Your task to perform on an android device: Open settings Image 0: 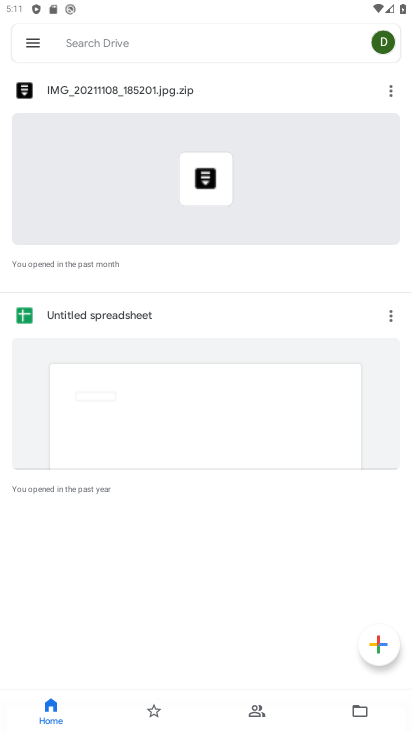
Step 0: press home button
Your task to perform on an android device: Open settings Image 1: 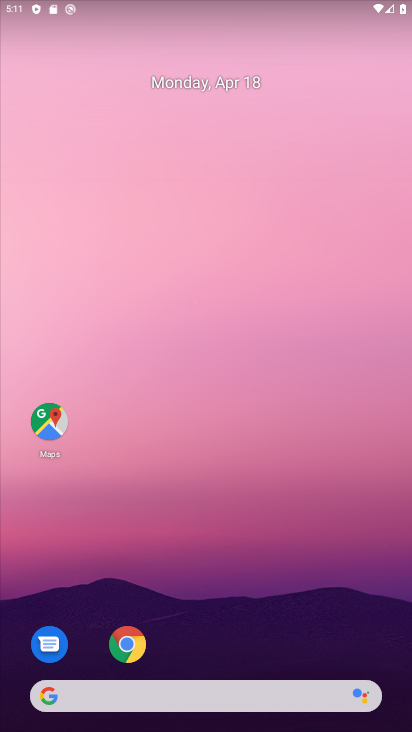
Step 1: drag from (232, 589) to (262, 97)
Your task to perform on an android device: Open settings Image 2: 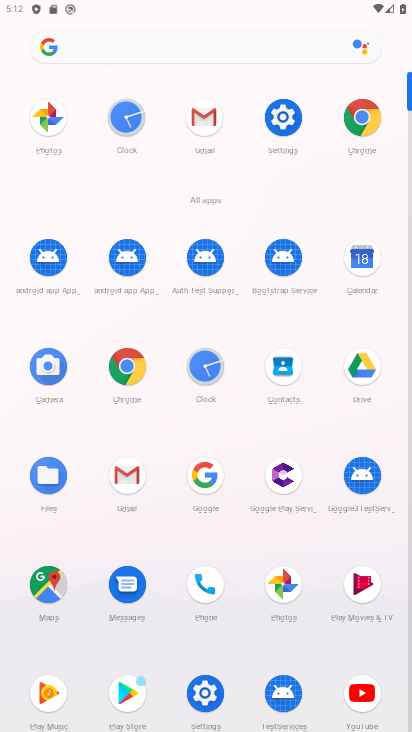
Step 2: click (275, 121)
Your task to perform on an android device: Open settings Image 3: 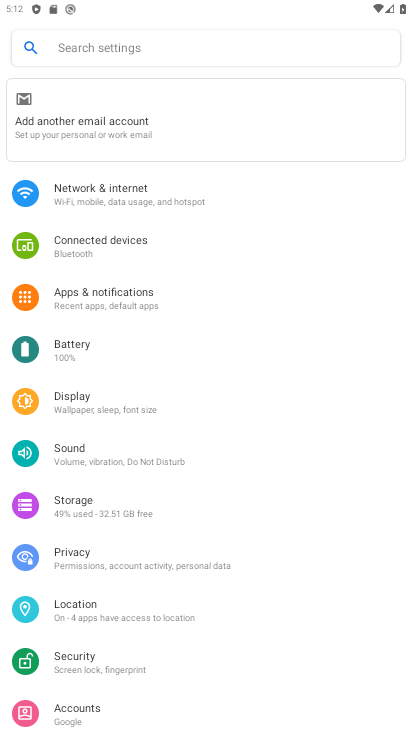
Step 3: task complete